Your task to perform on an android device: check battery use Image 0: 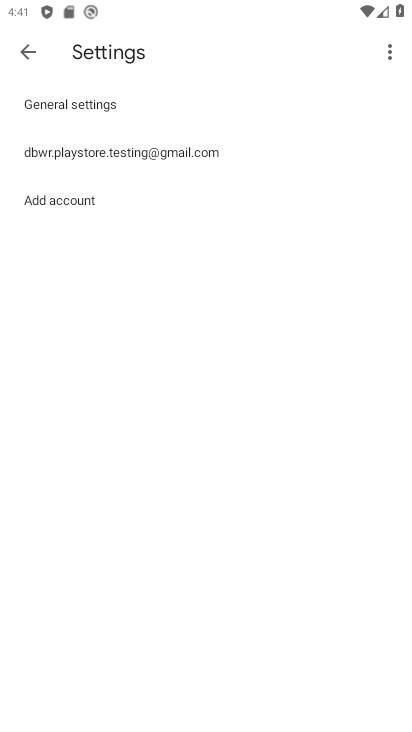
Step 0: press home button
Your task to perform on an android device: check battery use Image 1: 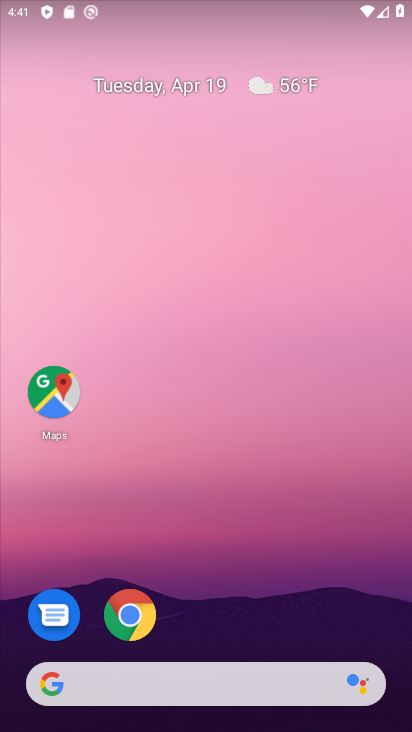
Step 1: drag from (372, 614) to (362, 98)
Your task to perform on an android device: check battery use Image 2: 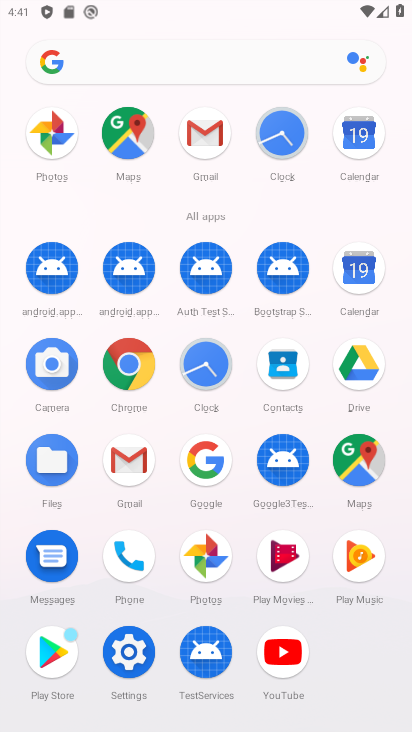
Step 2: click (128, 651)
Your task to perform on an android device: check battery use Image 3: 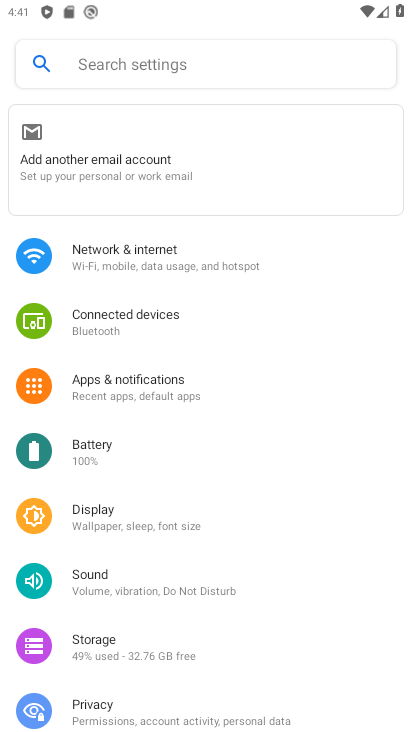
Step 3: click (85, 448)
Your task to perform on an android device: check battery use Image 4: 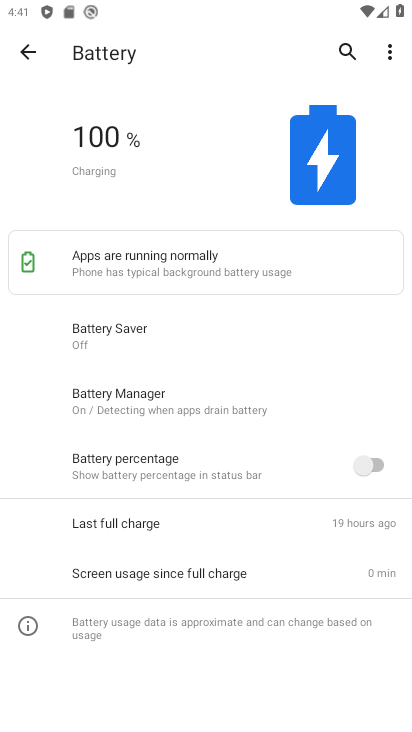
Step 4: click (386, 50)
Your task to perform on an android device: check battery use Image 5: 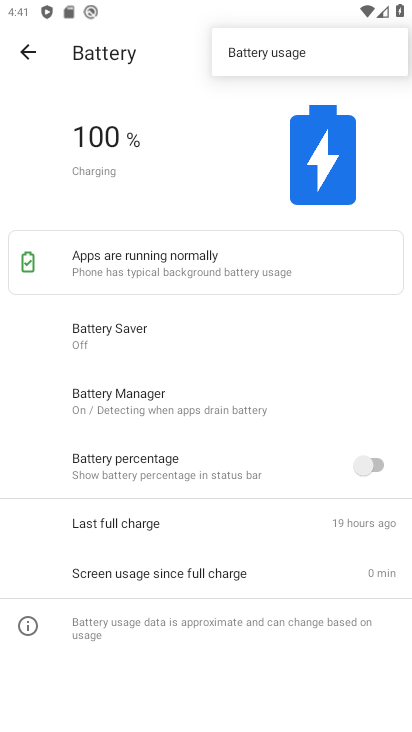
Step 5: click (267, 52)
Your task to perform on an android device: check battery use Image 6: 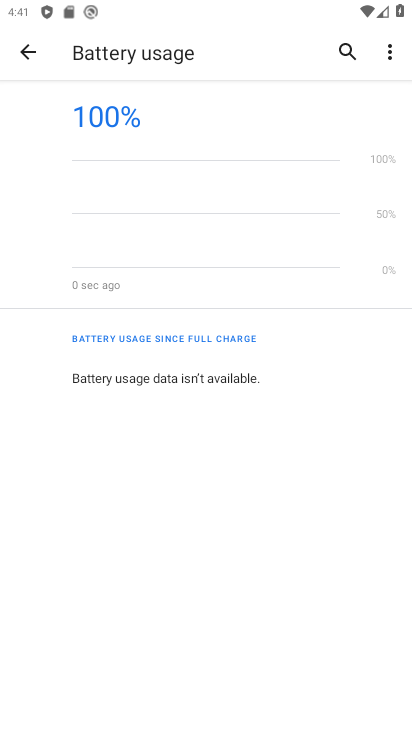
Step 6: task complete